Your task to perform on an android device: Open notification settings Image 0: 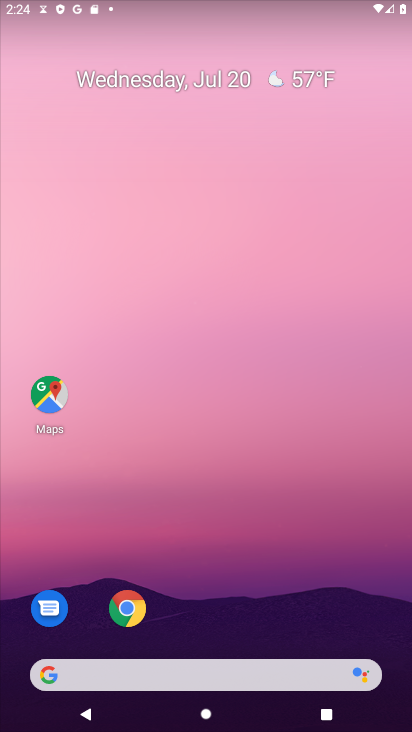
Step 0: drag from (189, 513) to (195, 228)
Your task to perform on an android device: Open notification settings Image 1: 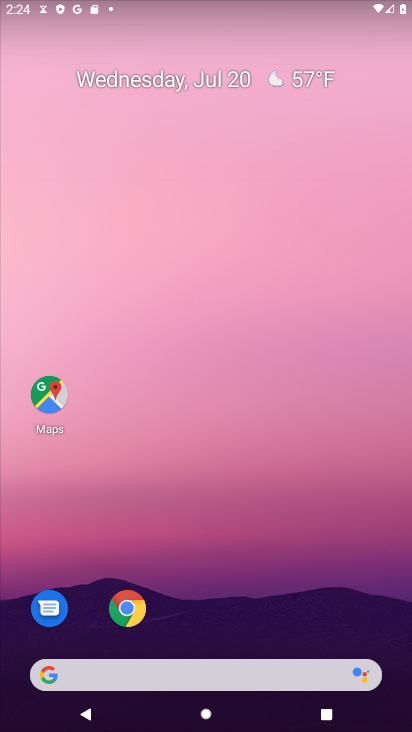
Step 1: drag from (171, 637) to (179, 0)
Your task to perform on an android device: Open notification settings Image 2: 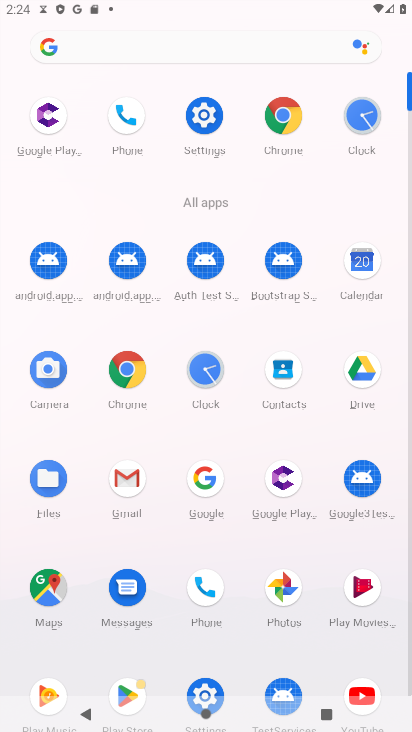
Step 2: click (199, 129)
Your task to perform on an android device: Open notification settings Image 3: 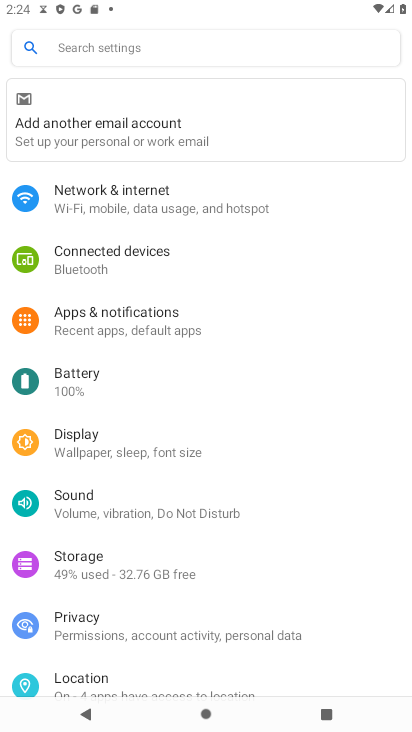
Step 3: click (62, 330)
Your task to perform on an android device: Open notification settings Image 4: 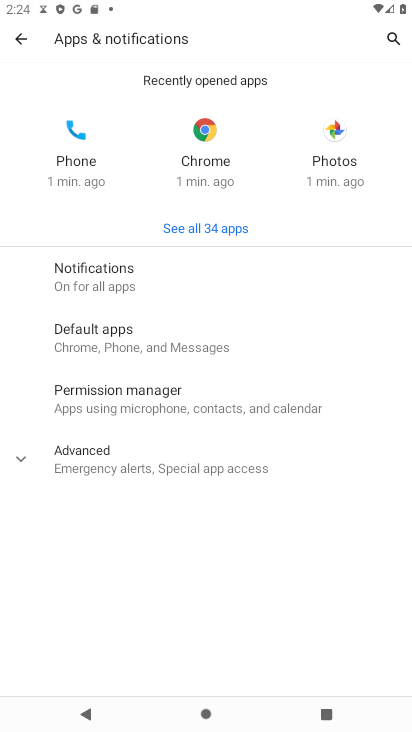
Step 4: click (85, 289)
Your task to perform on an android device: Open notification settings Image 5: 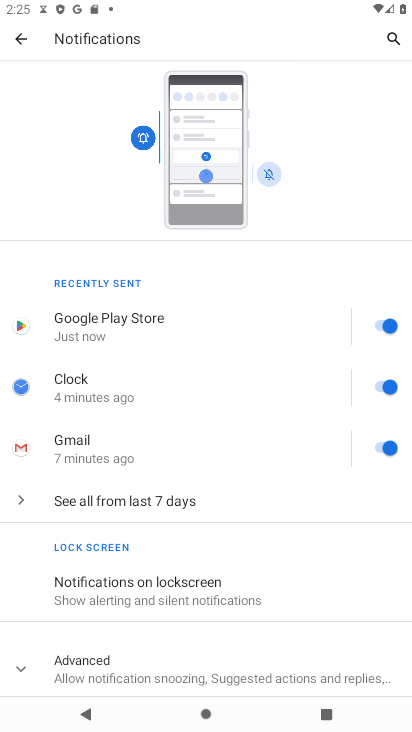
Step 5: task complete